Your task to perform on an android device: Set the phone to "Do not disturb". Image 0: 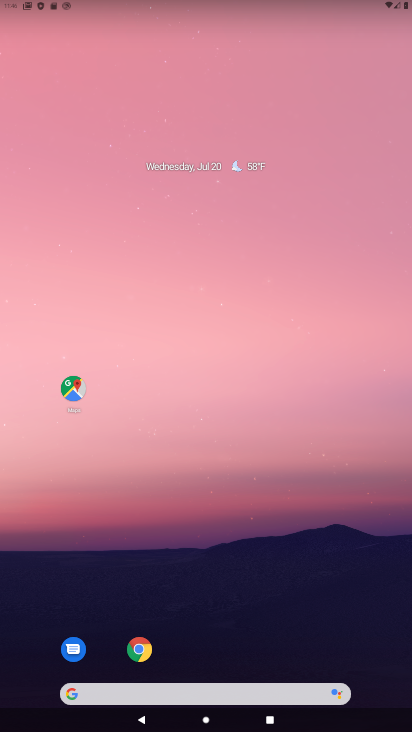
Step 0: drag from (208, 563) to (229, 104)
Your task to perform on an android device: Set the phone to "Do not disturb". Image 1: 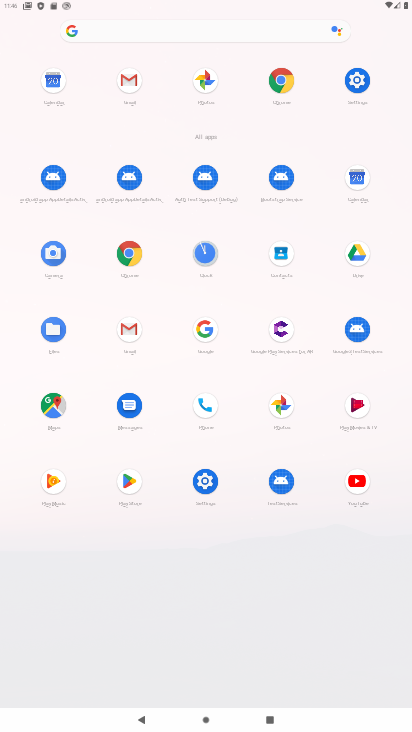
Step 1: click (359, 75)
Your task to perform on an android device: Set the phone to "Do not disturb". Image 2: 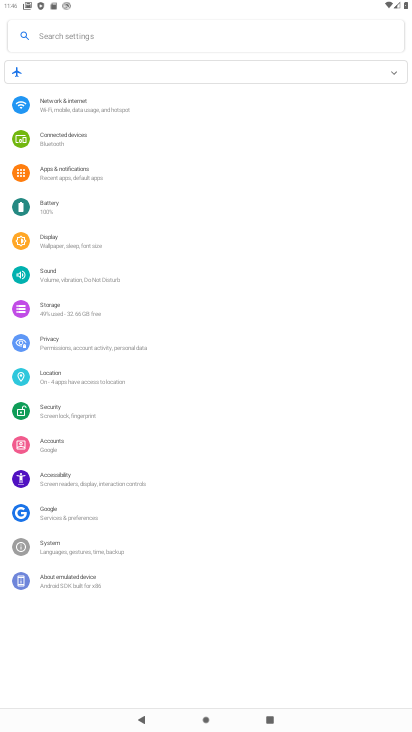
Step 2: click (61, 578)
Your task to perform on an android device: Set the phone to "Do not disturb". Image 3: 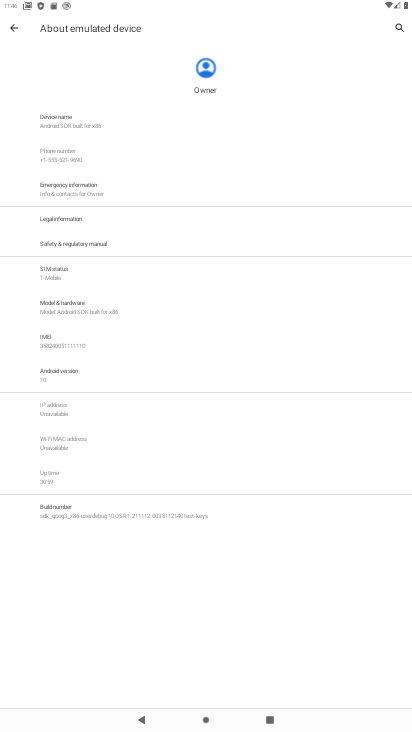
Step 3: task complete